Your task to perform on an android device: Open Google Chrome and open the bookmarks view Image 0: 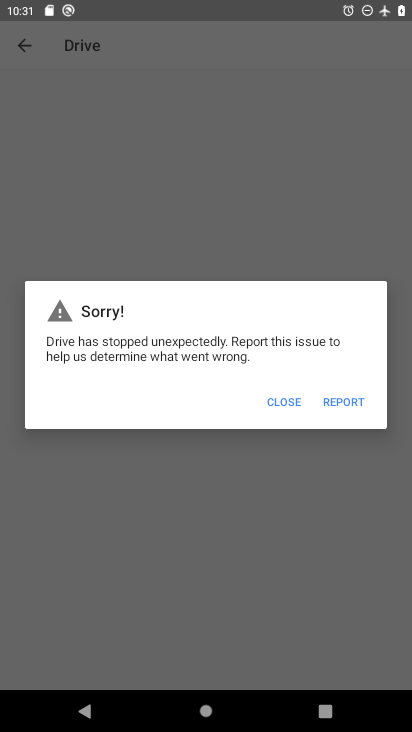
Step 0: click (293, 401)
Your task to perform on an android device: Open Google Chrome and open the bookmarks view Image 1: 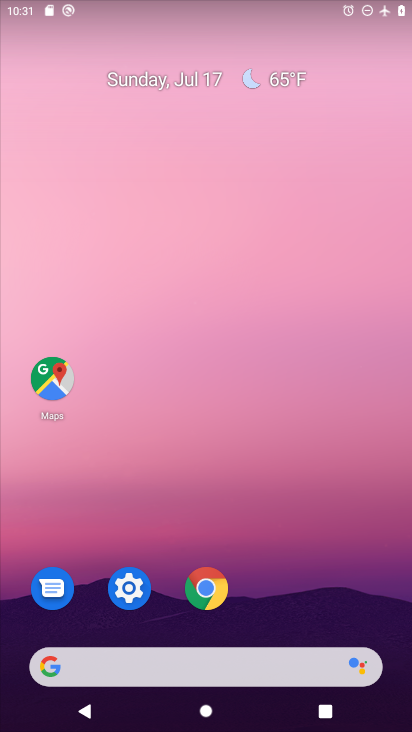
Step 1: drag from (248, 535) to (184, 95)
Your task to perform on an android device: Open Google Chrome and open the bookmarks view Image 2: 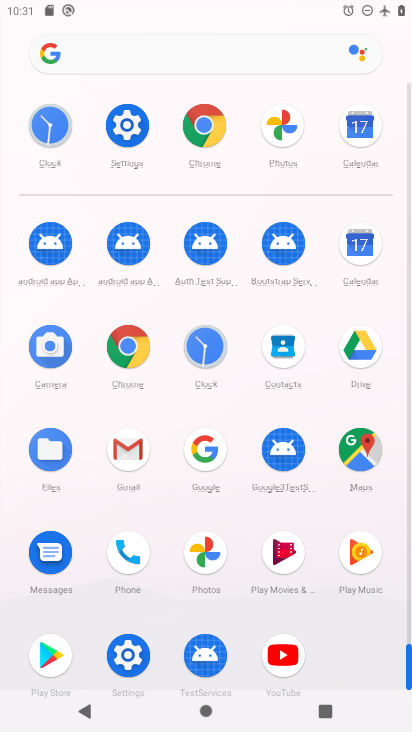
Step 2: click (201, 124)
Your task to perform on an android device: Open Google Chrome and open the bookmarks view Image 3: 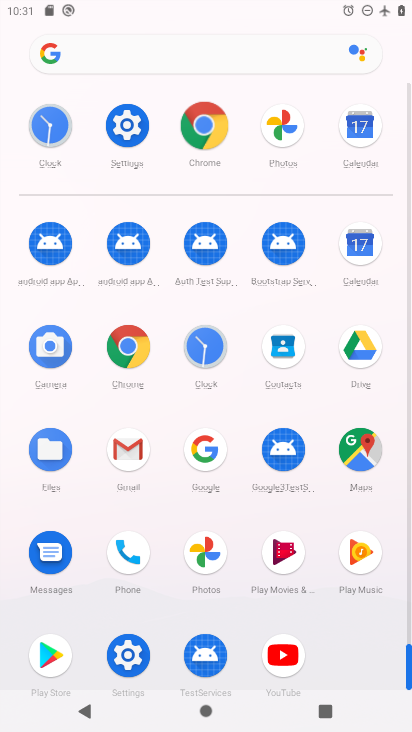
Step 3: click (201, 122)
Your task to perform on an android device: Open Google Chrome and open the bookmarks view Image 4: 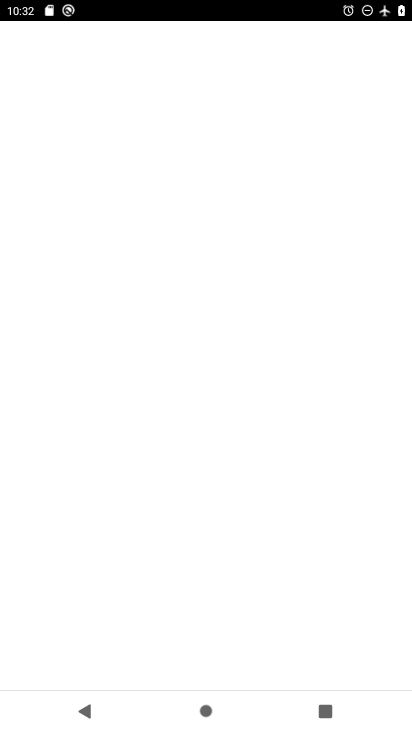
Step 4: click (201, 123)
Your task to perform on an android device: Open Google Chrome and open the bookmarks view Image 5: 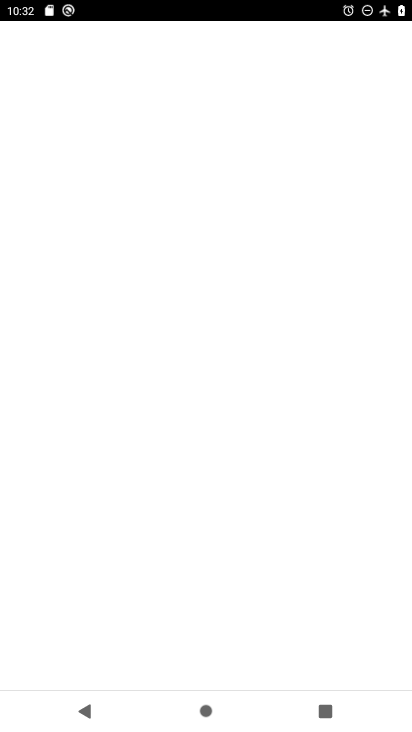
Step 5: click (201, 123)
Your task to perform on an android device: Open Google Chrome and open the bookmarks view Image 6: 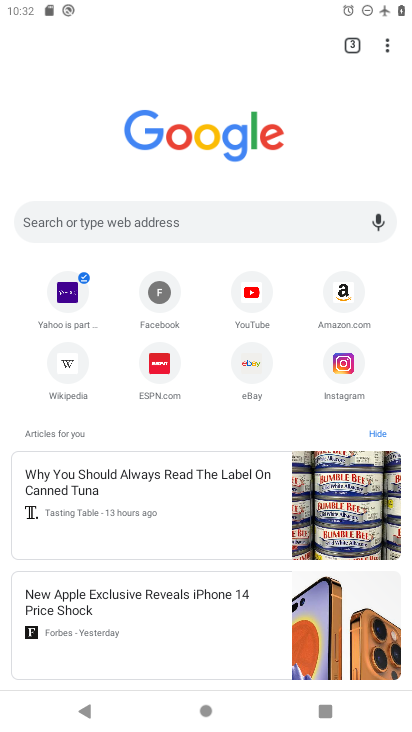
Step 6: drag from (389, 43) to (219, 383)
Your task to perform on an android device: Open Google Chrome and open the bookmarks view Image 7: 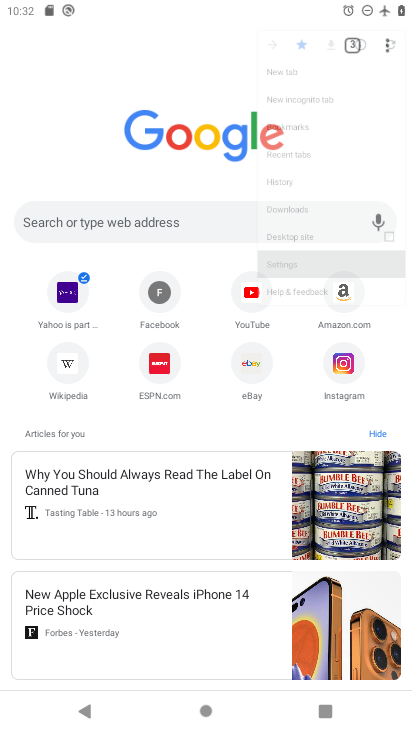
Step 7: click (219, 383)
Your task to perform on an android device: Open Google Chrome and open the bookmarks view Image 8: 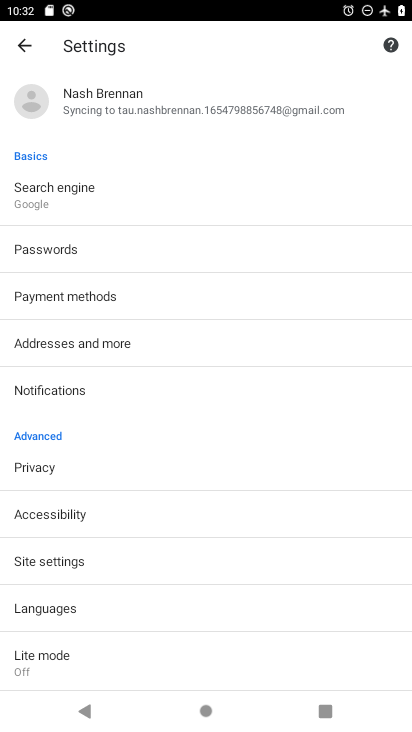
Step 8: click (19, 50)
Your task to perform on an android device: Open Google Chrome and open the bookmarks view Image 9: 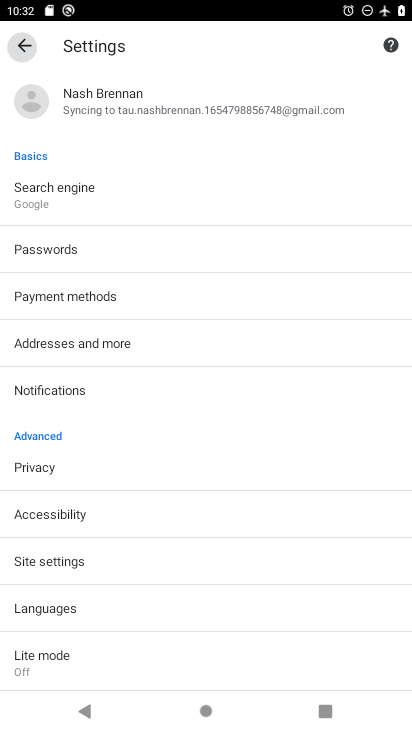
Step 9: click (19, 50)
Your task to perform on an android device: Open Google Chrome and open the bookmarks view Image 10: 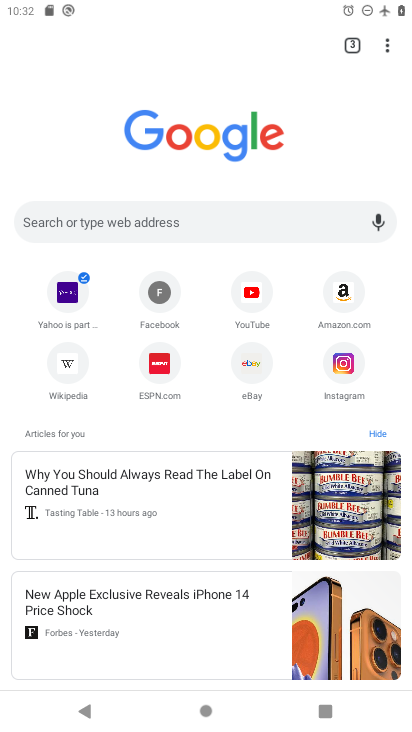
Step 10: drag from (384, 45) to (229, 169)
Your task to perform on an android device: Open Google Chrome and open the bookmarks view Image 11: 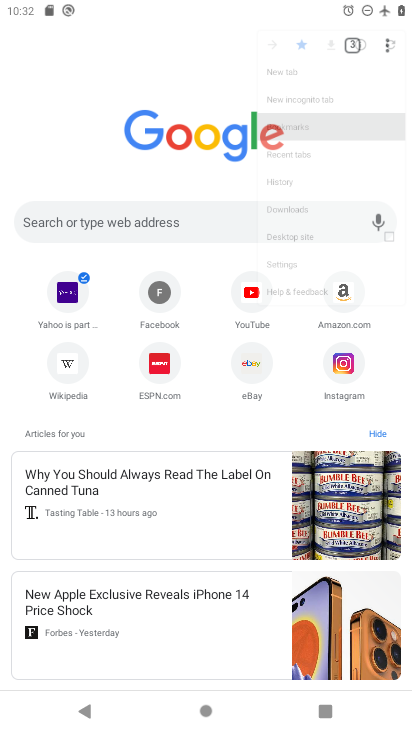
Step 11: click (230, 170)
Your task to perform on an android device: Open Google Chrome and open the bookmarks view Image 12: 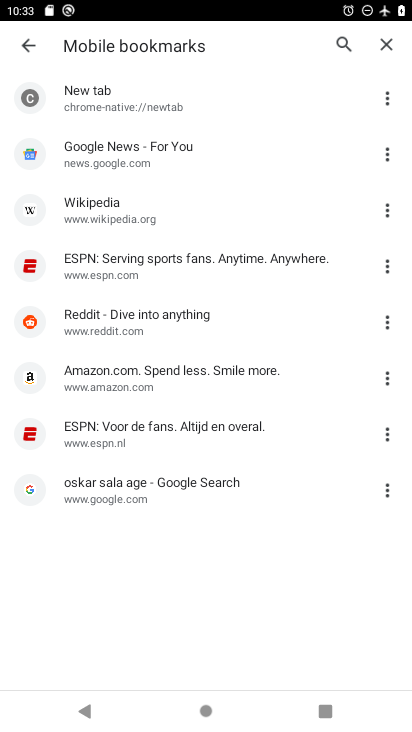
Step 12: task complete